Your task to perform on an android device: turn smart compose on in the gmail app Image 0: 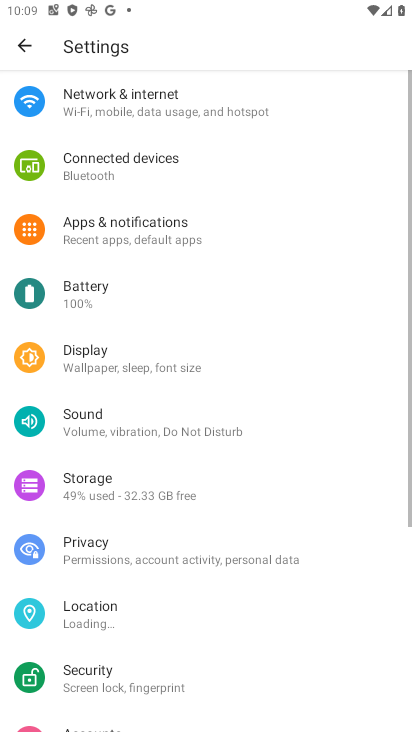
Step 0: press home button
Your task to perform on an android device: turn smart compose on in the gmail app Image 1: 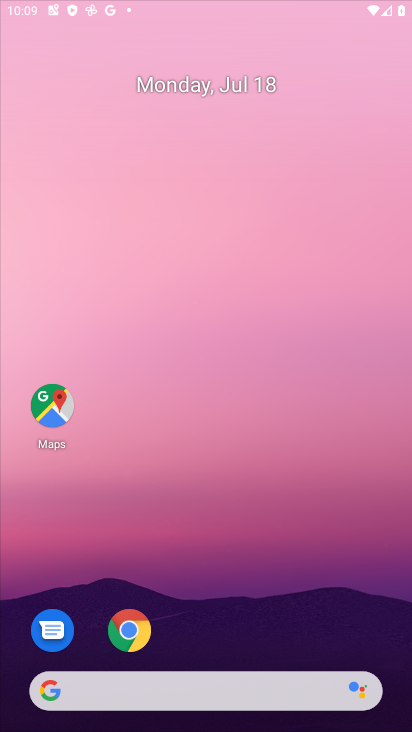
Step 1: drag from (390, 665) to (281, 61)
Your task to perform on an android device: turn smart compose on in the gmail app Image 2: 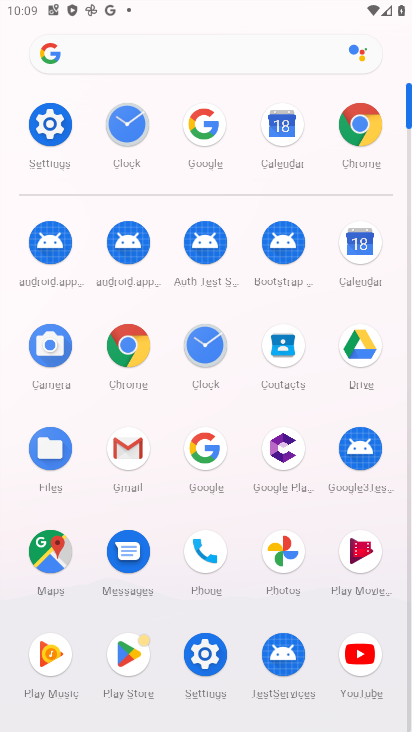
Step 2: click (139, 460)
Your task to perform on an android device: turn smart compose on in the gmail app Image 3: 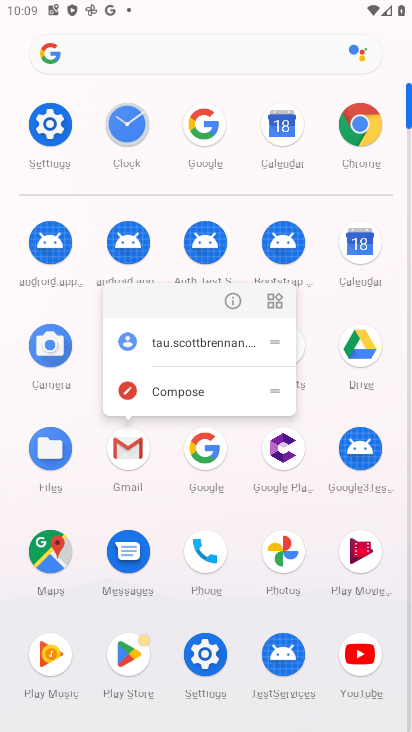
Step 3: click (136, 456)
Your task to perform on an android device: turn smart compose on in the gmail app Image 4: 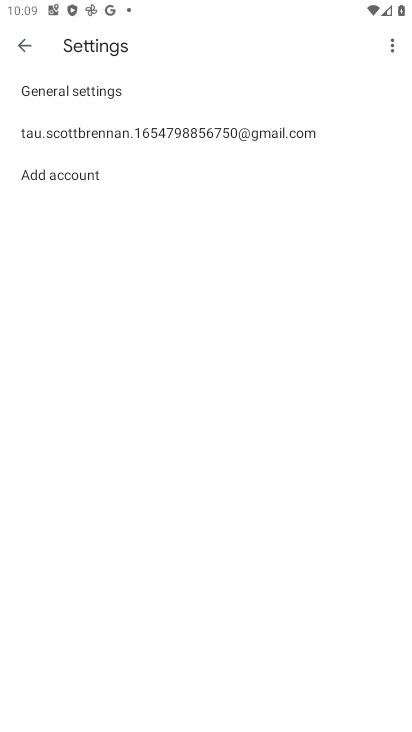
Step 4: click (90, 120)
Your task to perform on an android device: turn smart compose on in the gmail app Image 5: 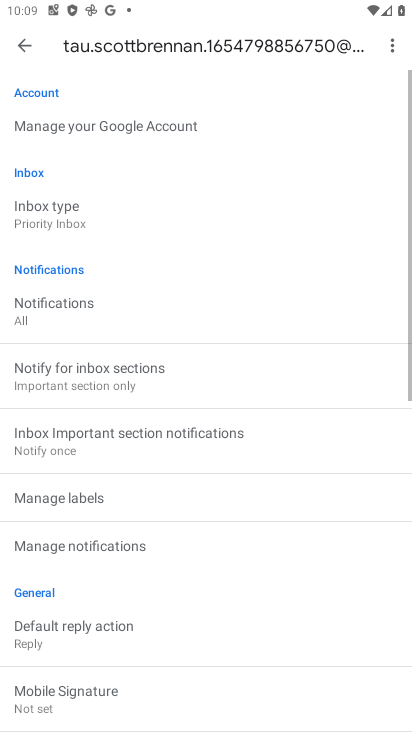
Step 5: task complete